Your task to perform on an android device: see creations saved in the google photos Image 0: 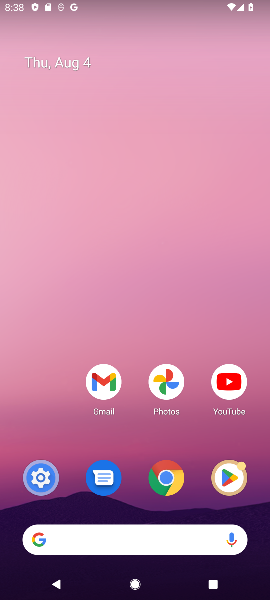
Step 0: press home button
Your task to perform on an android device: see creations saved in the google photos Image 1: 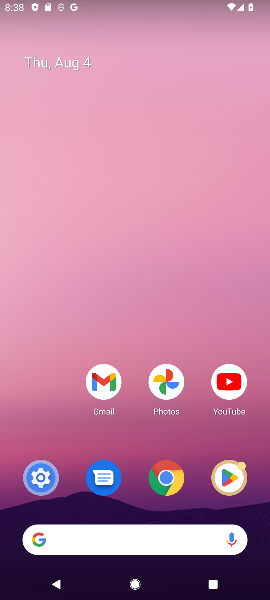
Step 1: drag from (127, 538) to (110, 119)
Your task to perform on an android device: see creations saved in the google photos Image 2: 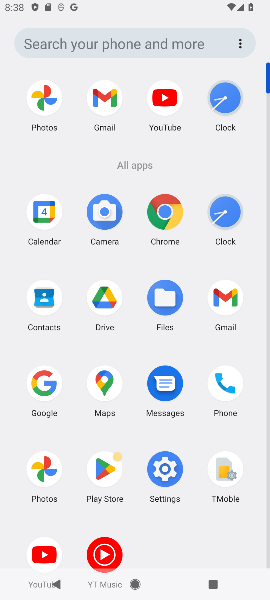
Step 2: click (55, 473)
Your task to perform on an android device: see creations saved in the google photos Image 3: 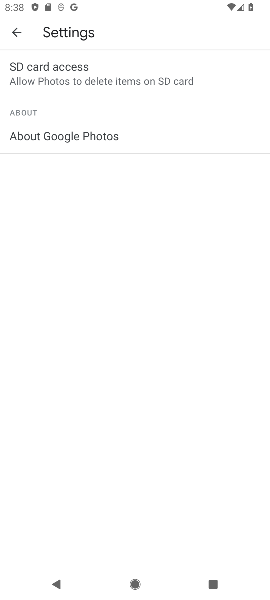
Step 3: click (19, 38)
Your task to perform on an android device: see creations saved in the google photos Image 4: 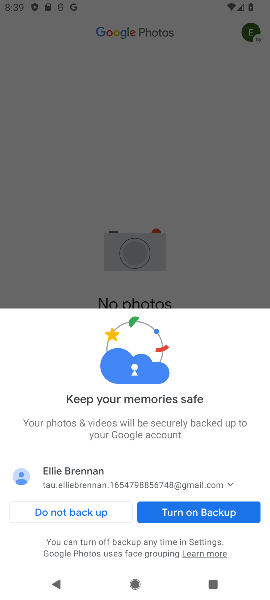
Step 4: click (88, 514)
Your task to perform on an android device: see creations saved in the google photos Image 5: 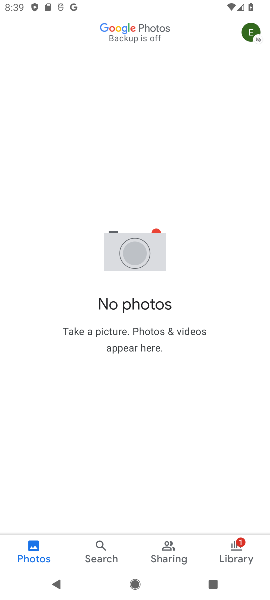
Step 5: click (102, 553)
Your task to perform on an android device: see creations saved in the google photos Image 6: 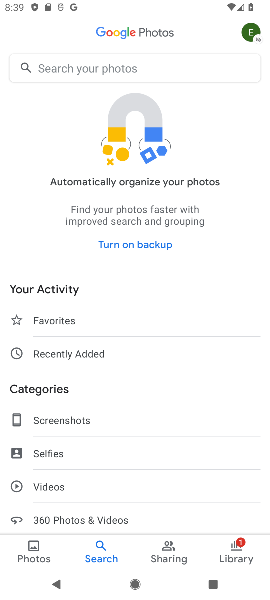
Step 6: drag from (75, 445) to (96, 319)
Your task to perform on an android device: see creations saved in the google photos Image 7: 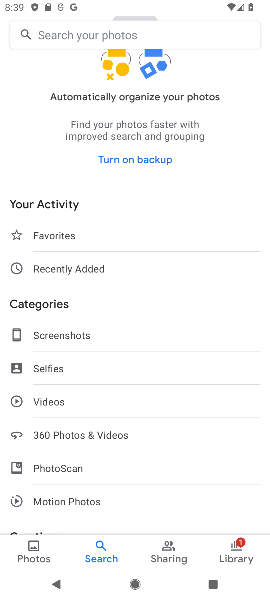
Step 7: drag from (71, 462) to (98, 205)
Your task to perform on an android device: see creations saved in the google photos Image 8: 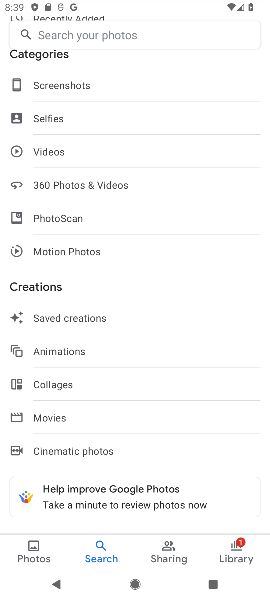
Step 8: click (31, 317)
Your task to perform on an android device: see creations saved in the google photos Image 9: 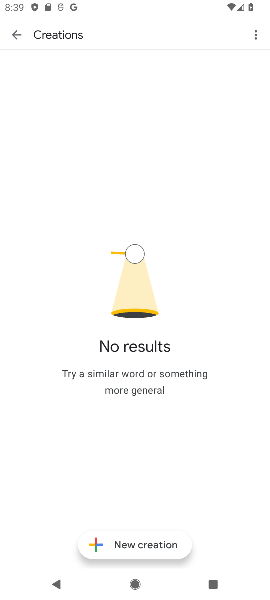
Step 9: task complete